Your task to perform on an android device: Do I have any events this weekend? Image 0: 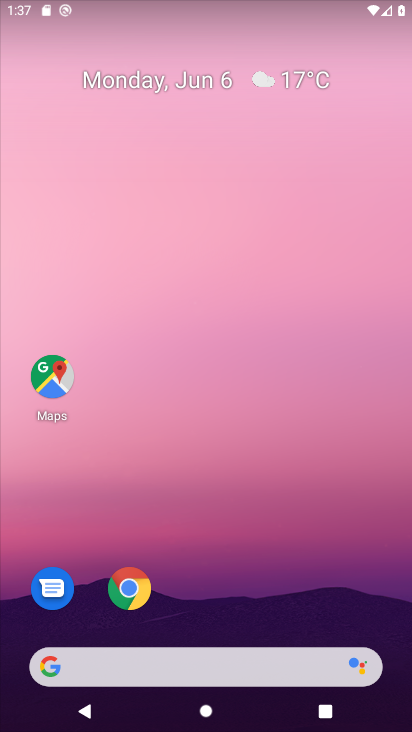
Step 0: drag from (207, 601) to (268, 171)
Your task to perform on an android device: Do I have any events this weekend? Image 1: 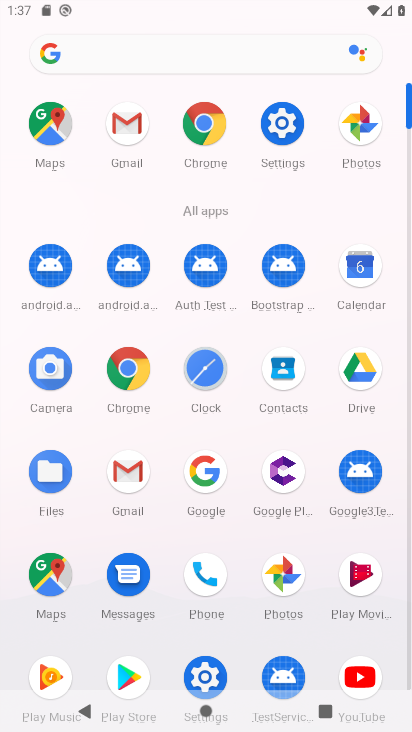
Step 1: drag from (175, 595) to (198, 299)
Your task to perform on an android device: Do I have any events this weekend? Image 2: 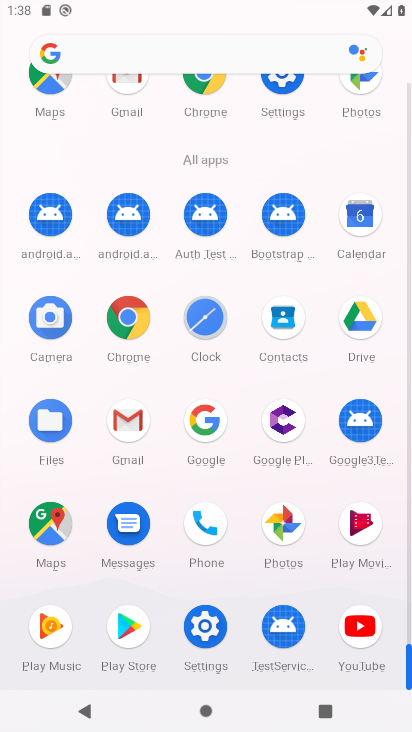
Step 2: click (373, 253)
Your task to perform on an android device: Do I have any events this weekend? Image 3: 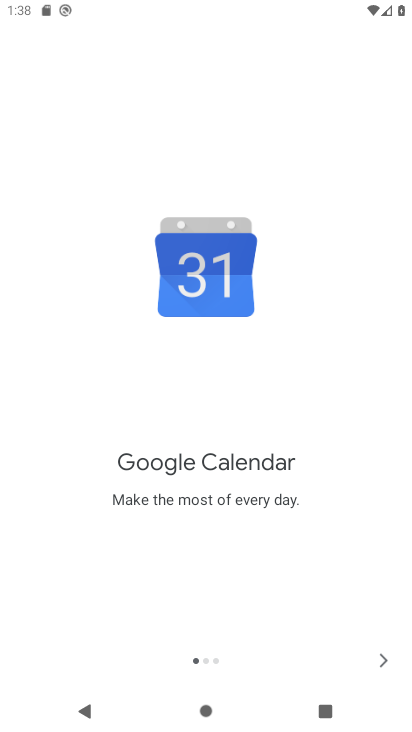
Step 3: click (390, 672)
Your task to perform on an android device: Do I have any events this weekend? Image 4: 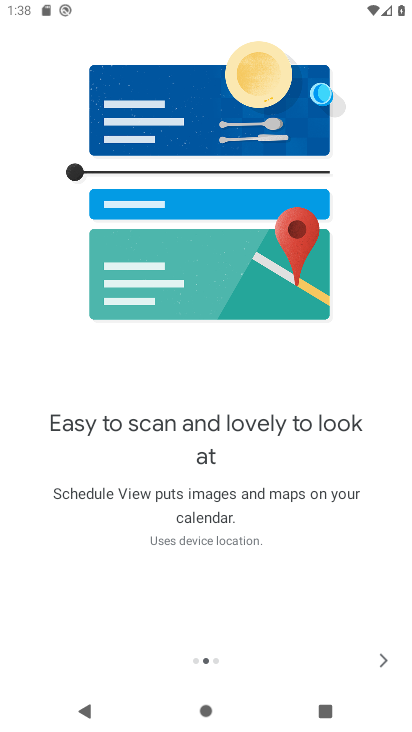
Step 4: click (379, 661)
Your task to perform on an android device: Do I have any events this weekend? Image 5: 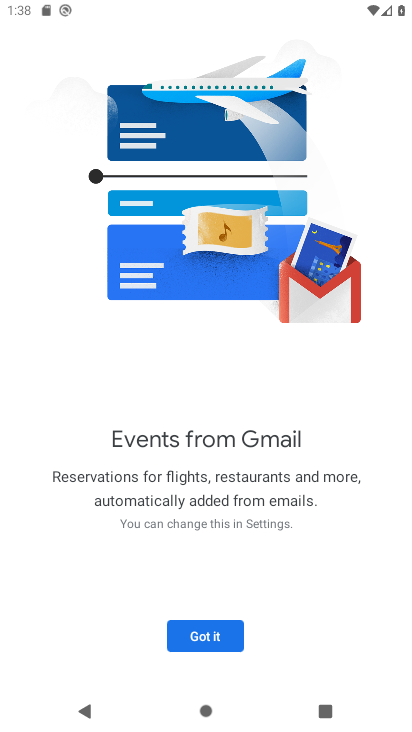
Step 5: click (210, 629)
Your task to perform on an android device: Do I have any events this weekend? Image 6: 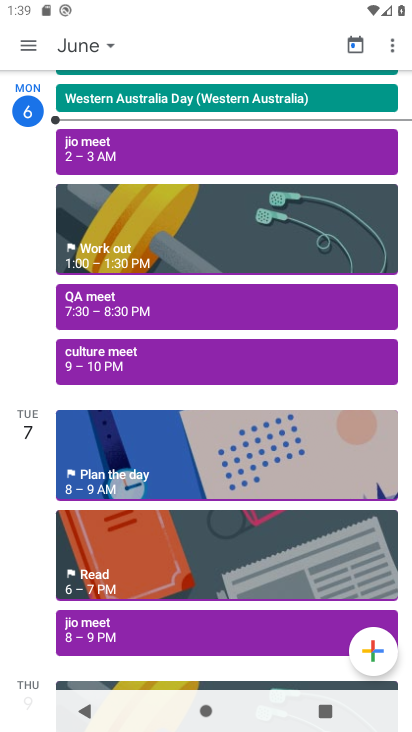
Step 6: click (82, 49)
Your task to perform on an android device: Do I have any events this weekend? Image 7: 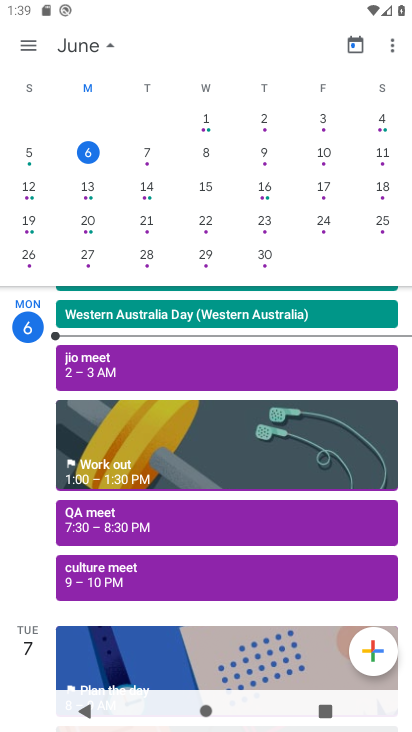
Step 7: click (33, 157)
Your task to perform on an android device: Do I have any events this weekend? Image 8: 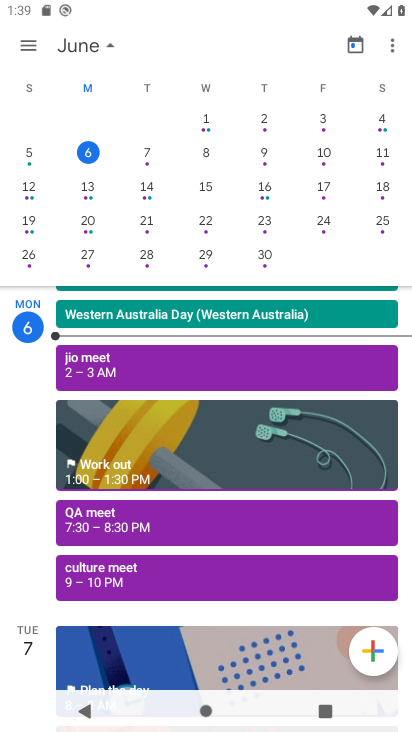
Step 8: click (25, 151)
Your task to perform on an android device: Do I have any events this weekend? Image 9: 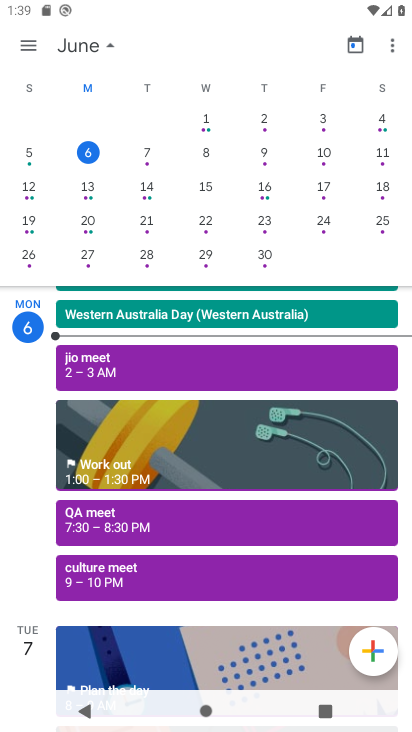
Step 9: click (30, 160)
Your task to perform on an android device: Do I have any events this weekend? Image 10: 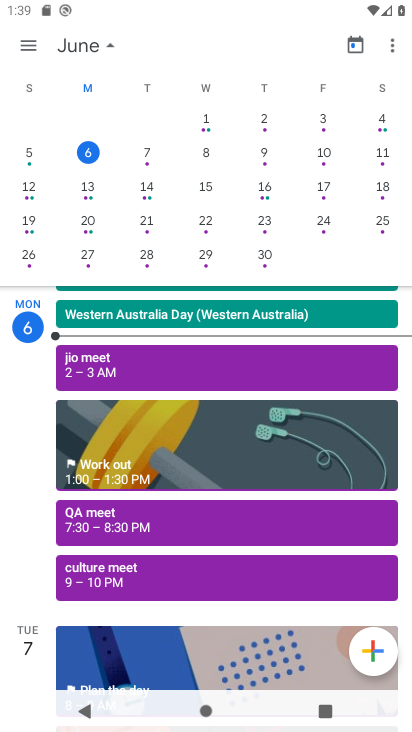
Step 10: click (36, 158)
Your task to perform on an android device: Do I have any events this weekend? Image 11: 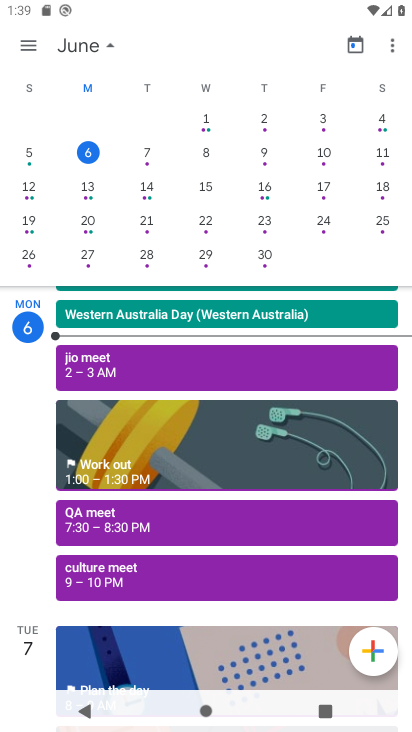
Step 11: click (36, 158)
Your task to perform on an android device: Do I have any events this weekend? Image 12: 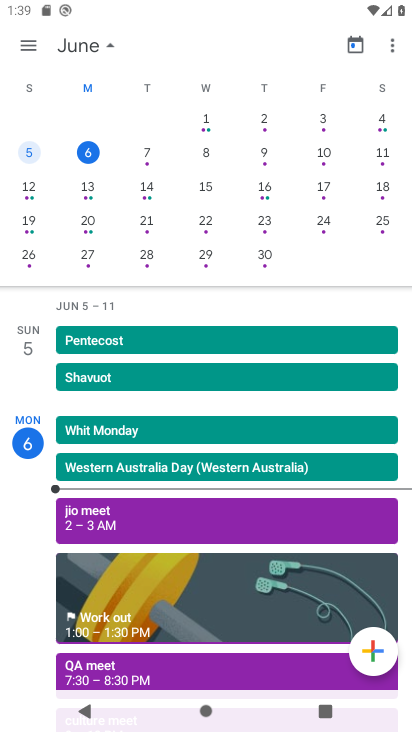
Step 12: click (28, 53)
Your task to perform on an android device: Do I have any events this weekend? Image 13: 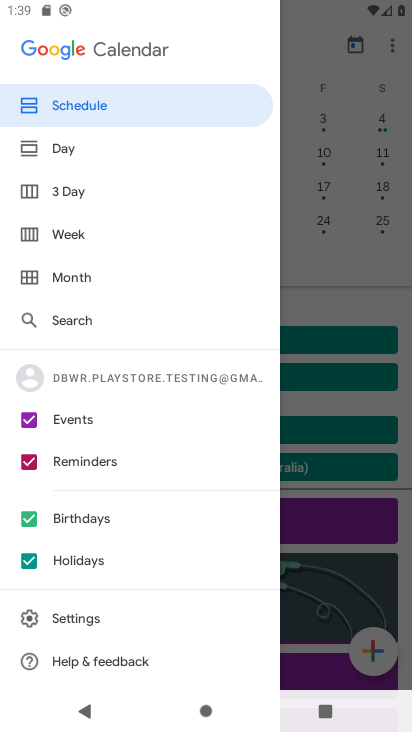
Step 13: click (66, 239)
Your task to perform on an android device: Do I have any events this weekend? Image 14: 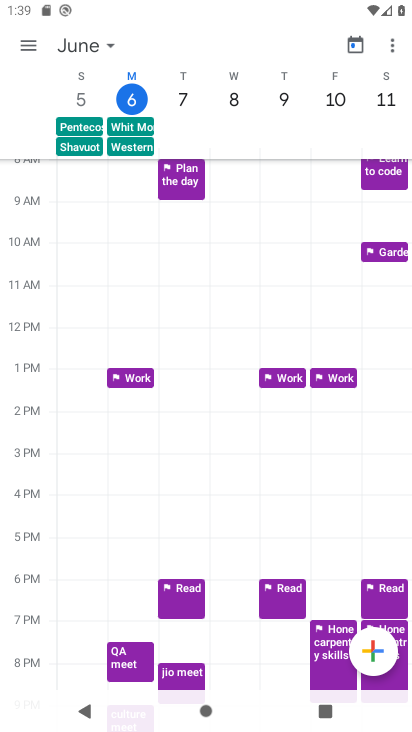
Step 14: task complete